Your task to perform on an android device: change the clock display to digital Image 0: 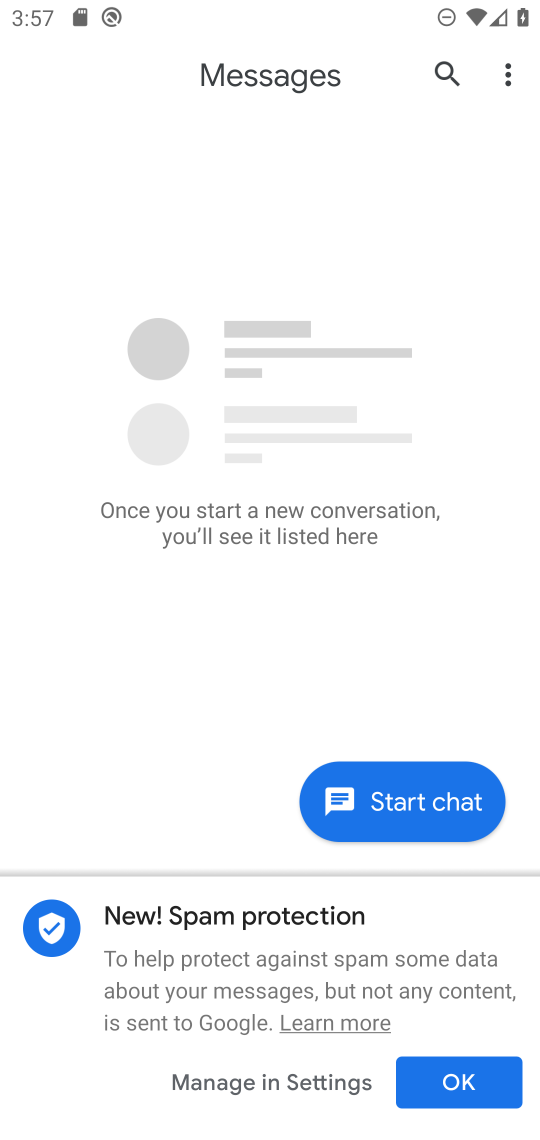
Step 0: press home button
Your task to perform on an android device: change the clock display to digital Image 1: 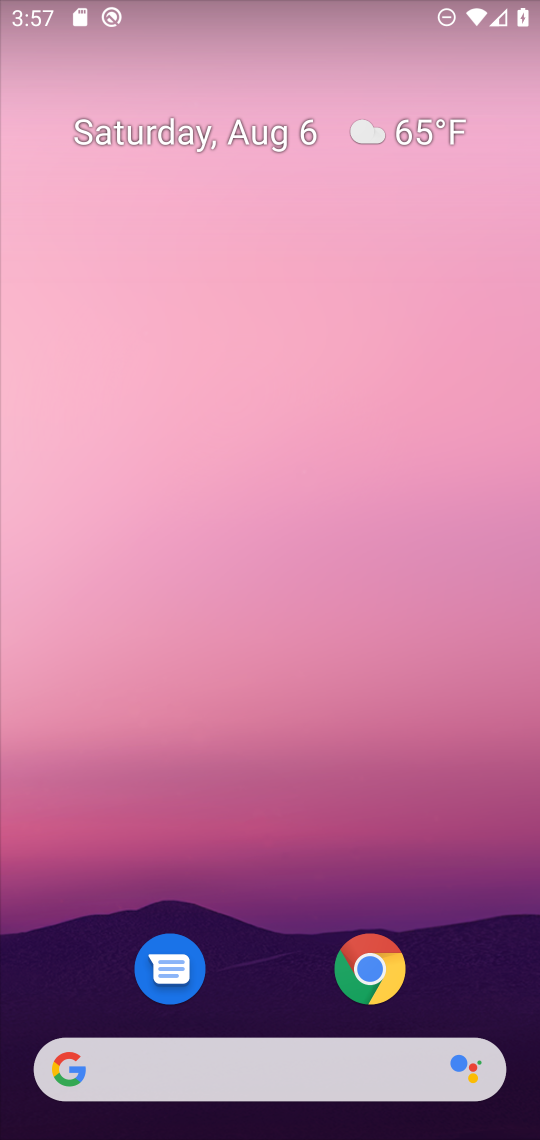
Step 1: press home button
Your task to perform on an android device: change the clock display to digital Image 2: 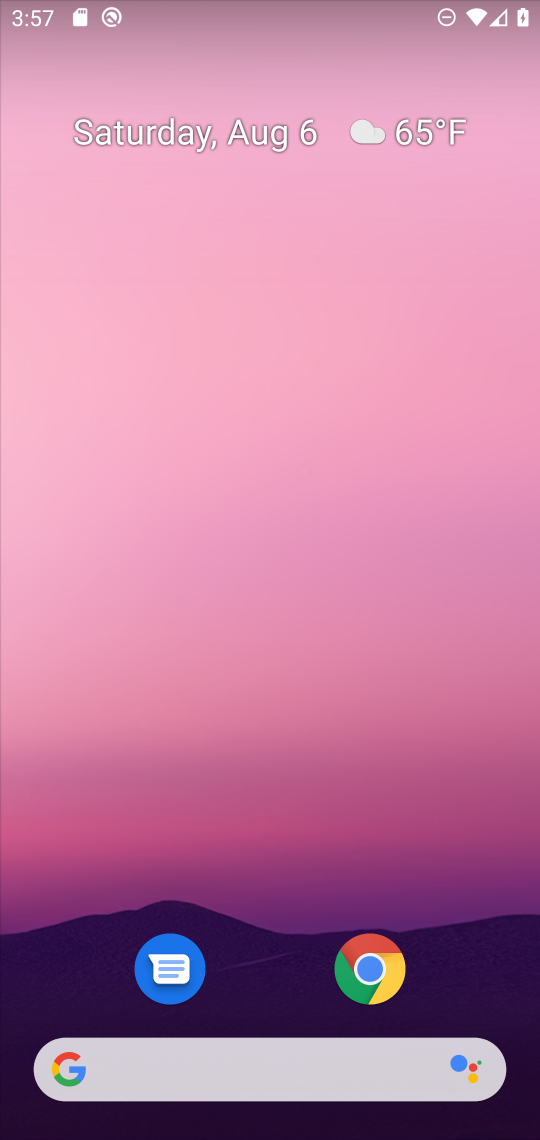
Step 2: click (342, 110)
Your task to perform on an android device: change the clock display to digital Image 3: 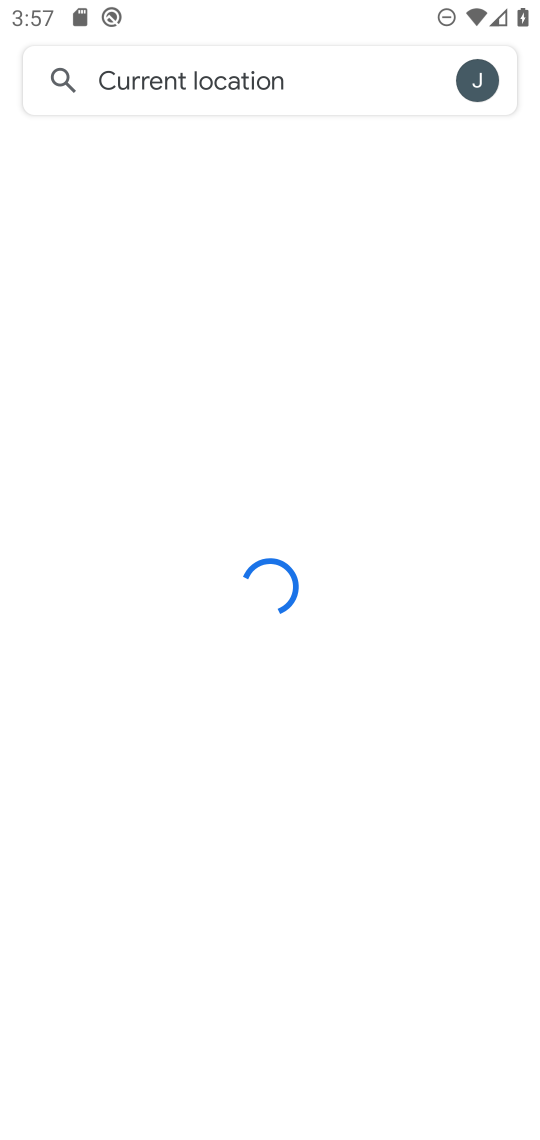
Step 3: press home button
Your task to perform on an android device: change the clock display to digital Image 4: 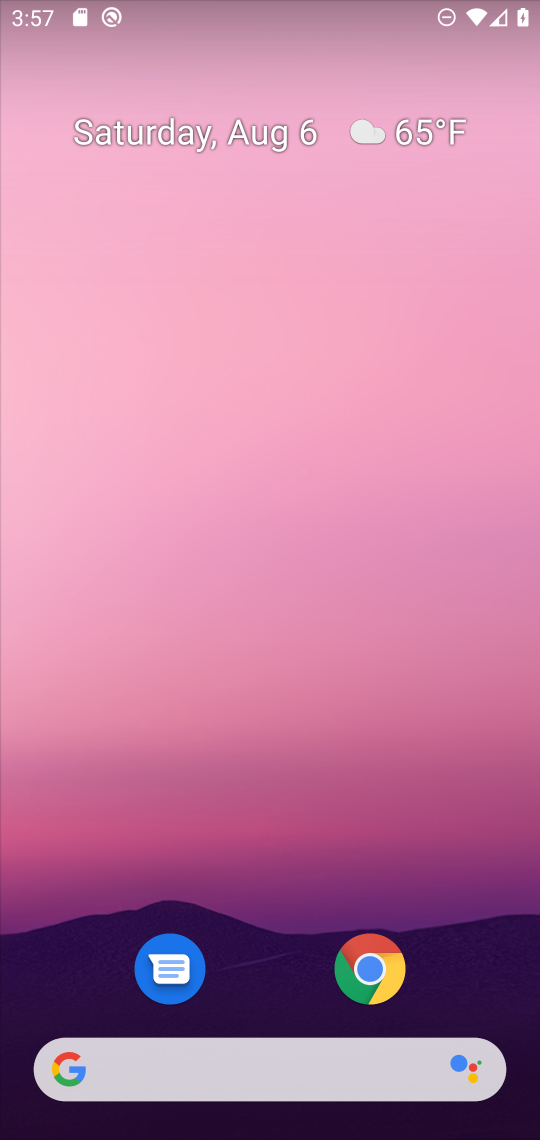
Step 4: drag from (407, 207) to (521, 8)
Your task to perform on an android device: change the clock display to digital Image 5: 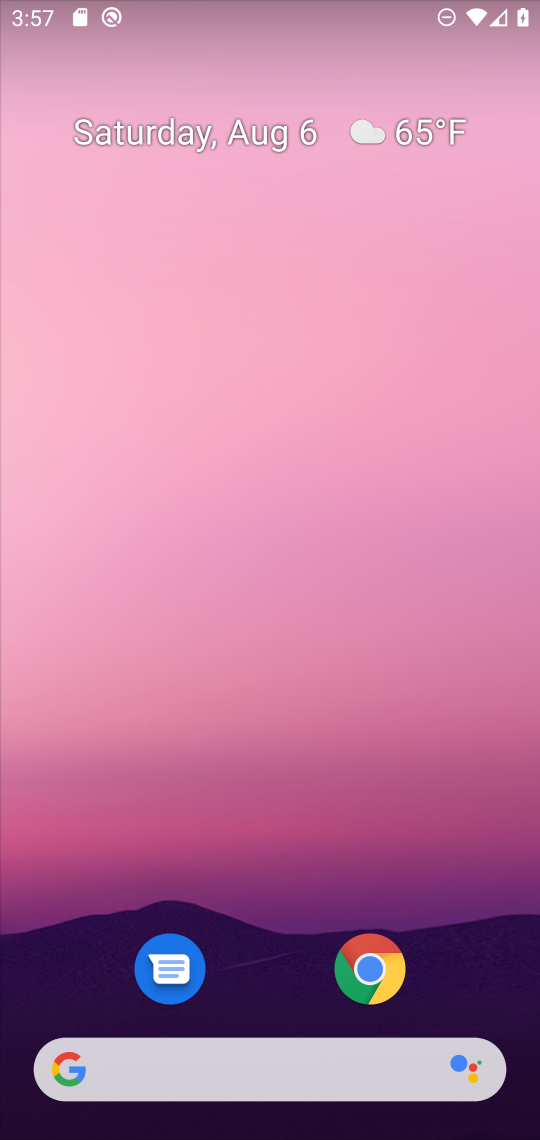
Step 5: drag from (289, 916) to (460, 3)
Your task to perform on an android device: change the clock display to digital Image 6: 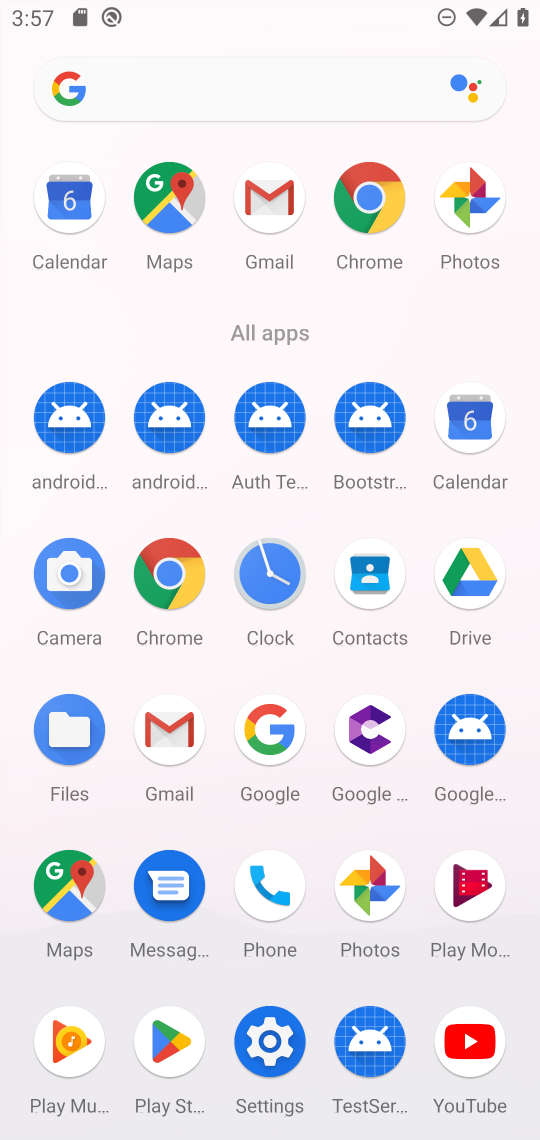
Step 6: click (276, 560)
Your task to perform on an android device: change the clock display to digital Image 7: 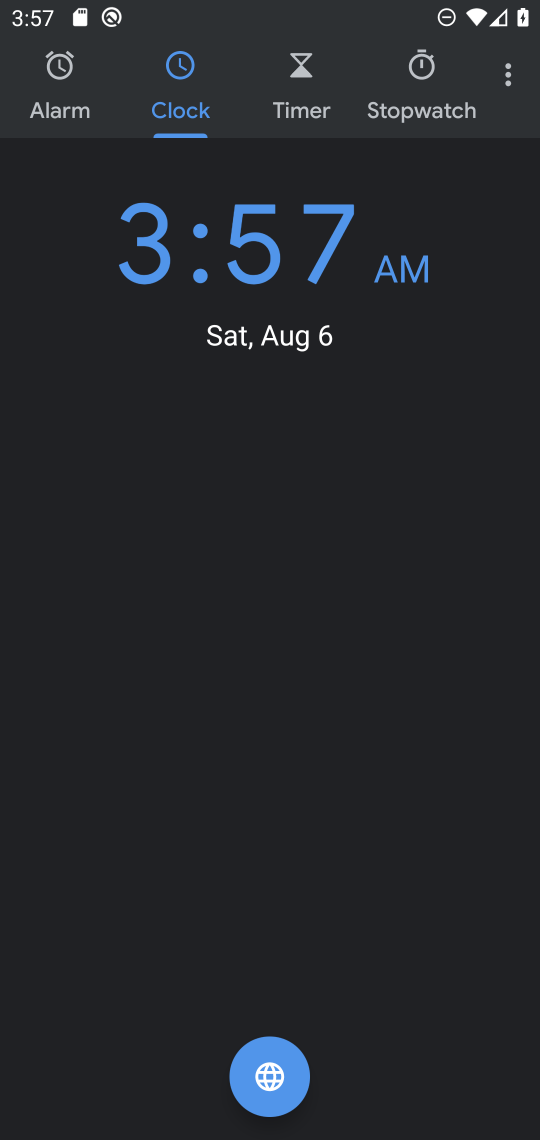
Step 7: click (514, 79)
Your task to perform on an android device: change the clock display to digital Image 8: 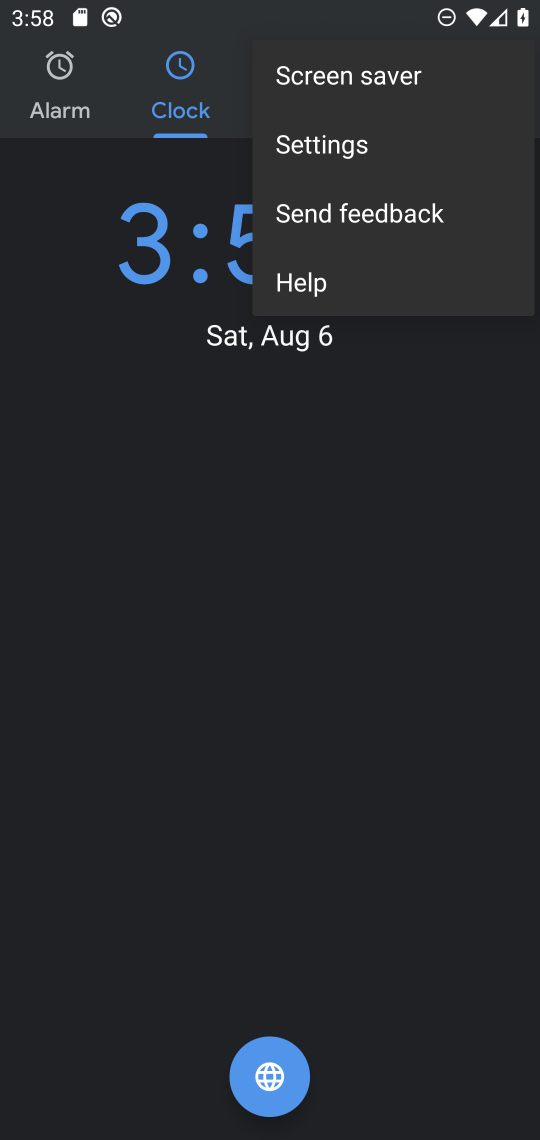
Step 8: click (338, 140)
Your task to perform on an android device: change the clock display to digital Image 9: 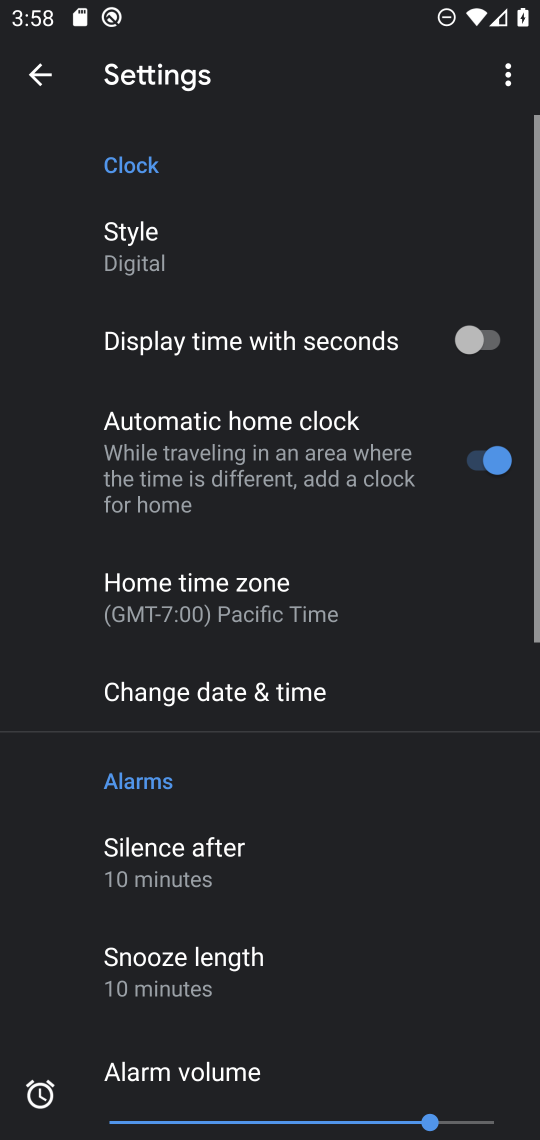
Step 9: click (181, 241)
Your task to perform on an android device: change the clock display to digital Image 10: 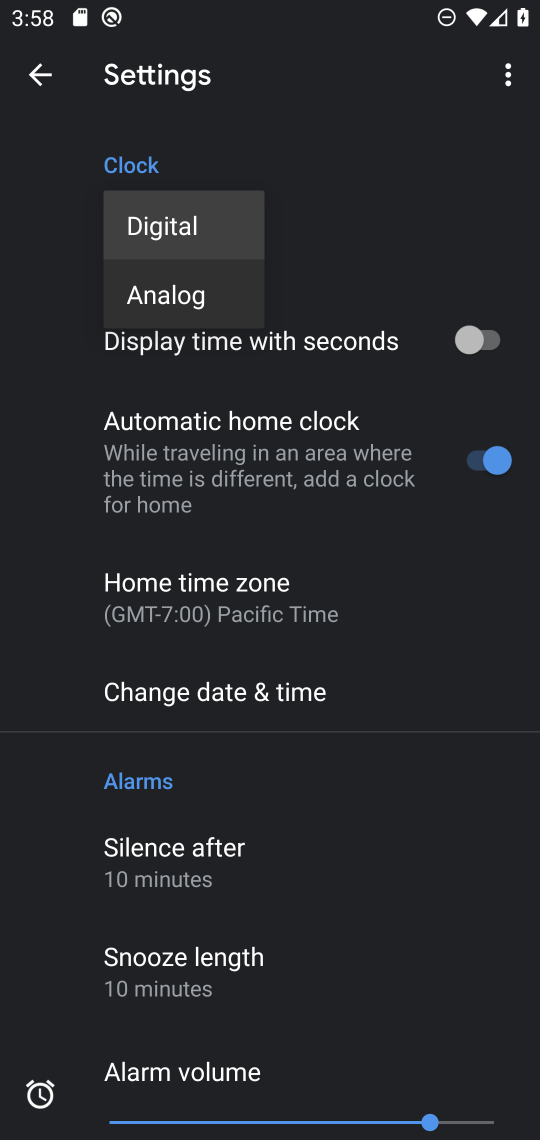
Step 10: click (182, 294)
Your task to perform on an android device: change the clock display to digital Image 11: 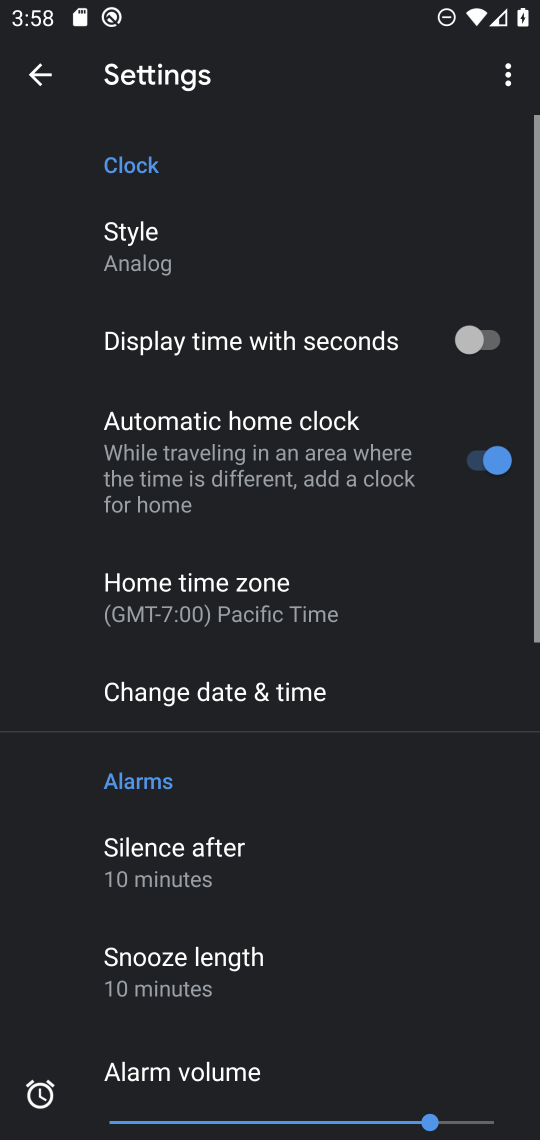
Step 11: task complete